Your task to perform on an android device: turn notification dots off Image 0: 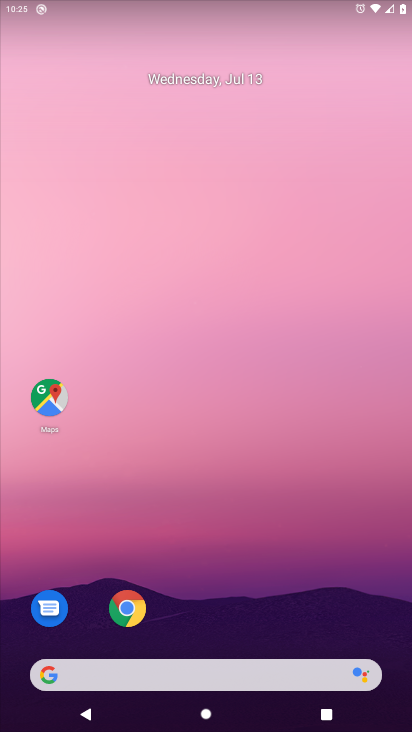
Step 0: drag from (118, 425) to (256, 469)
Your task to perform on an android device: turn notification dots off Image 1: 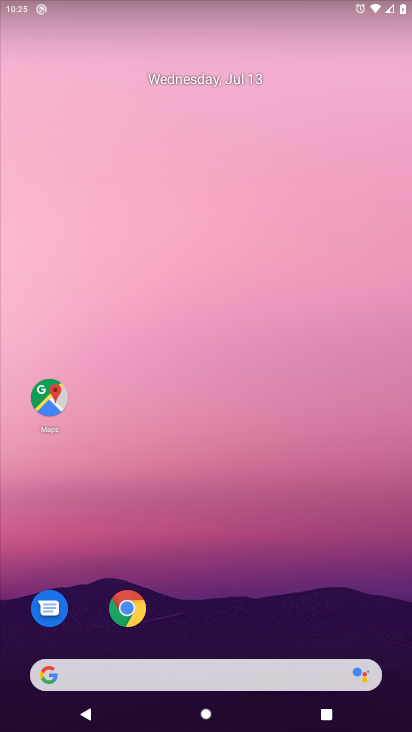
Step 1: drag from (20, 707) to (207, 151)
Your task to perform on an android device: turn notification dots off Image 2: 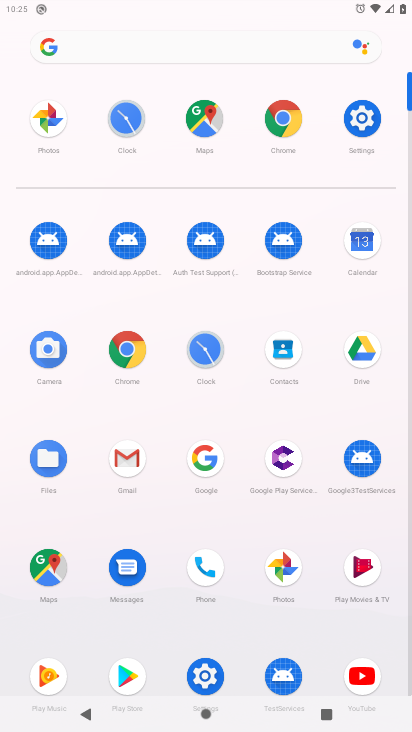
Step 2: click (199, 675)
Your task to perform on an android device: turn notification dots off Image 3: 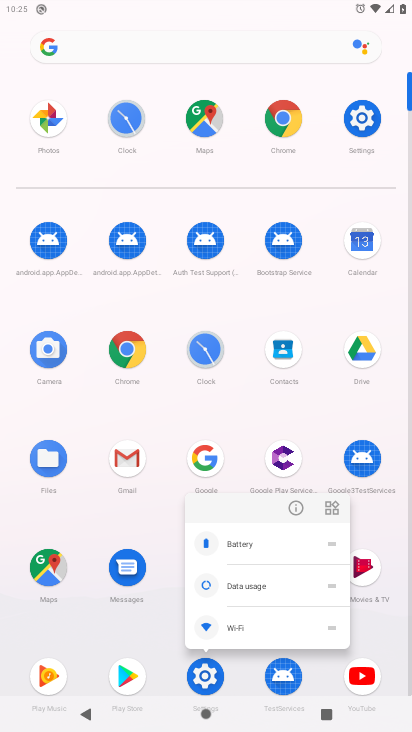
Step 3: click (210, 685)
Your task to perform on an android device: turn notification dots off Image 4: 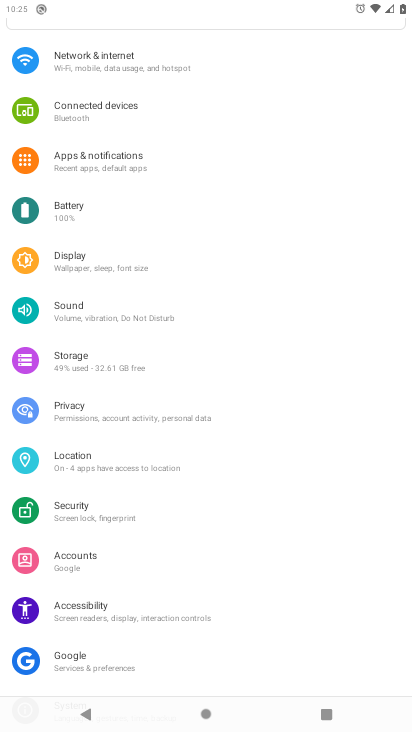
Step 4: click (150, 160)
Your task to perform on an android device: turn notification dots off Image 5: 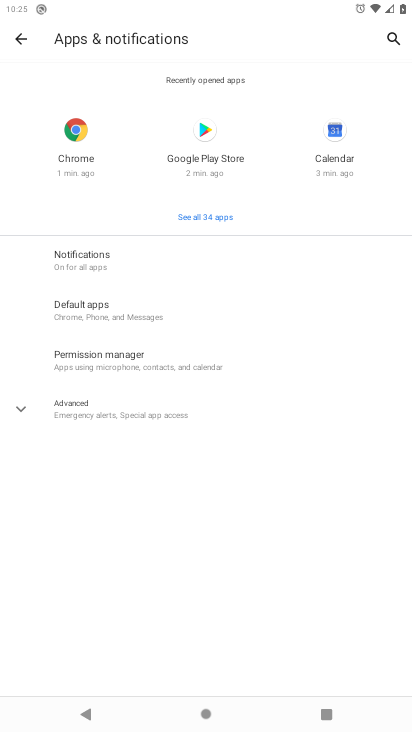
Step 5: click (130, 250)
Your task to perform on an android device: turn notification dots off Image 6: 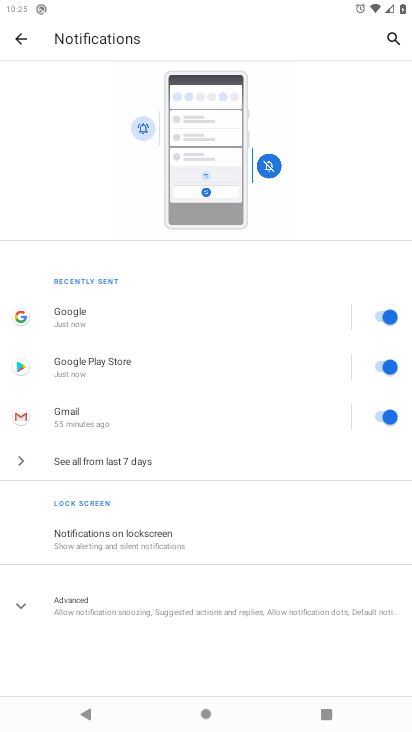
Step 6: click (91, 601)
Your task to perform on an android device: turn notification dots off Image 7: 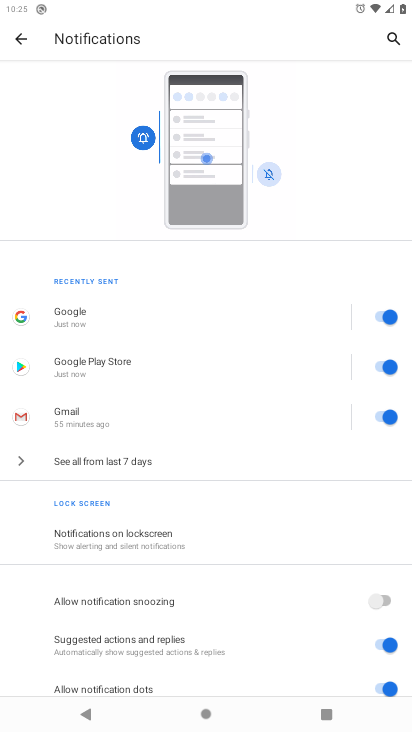
Step 7: drag from (273, 525) to (259, 7)
Your task to perform on an android device: turn notification dots off Image 8: 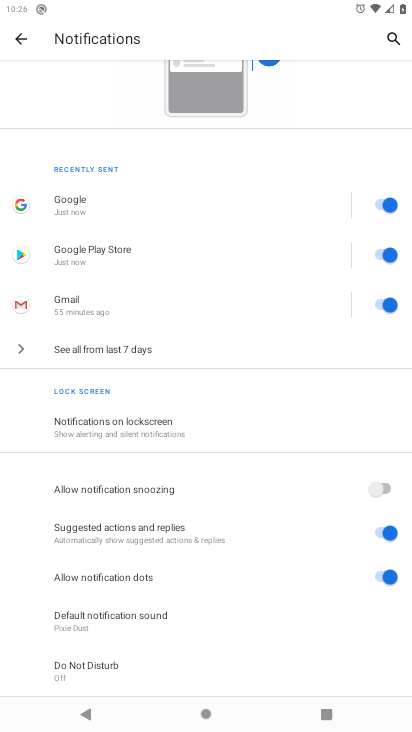
Step 8: click (387, 570)
Your task to perform on an android device: turn notification dots off Image 9: 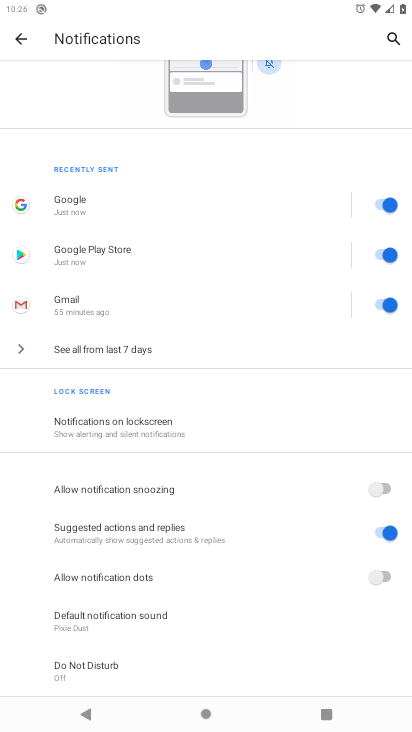
Step 9: task complete